Your task to perform on an android device: check android version Image 0: 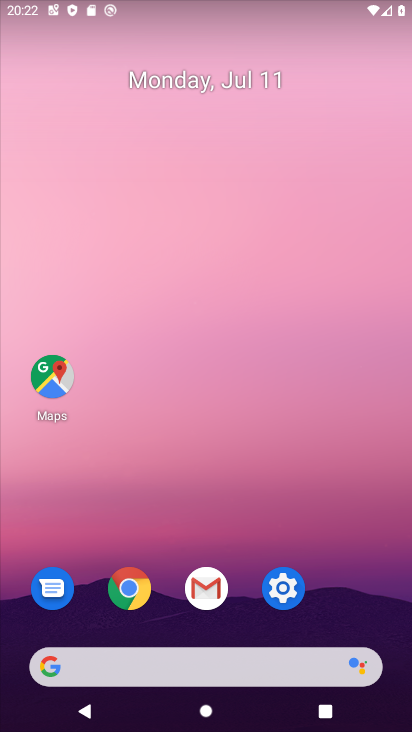
Step 0: click (280, 586)
Your task to perform on an android device: check android version Image 1: 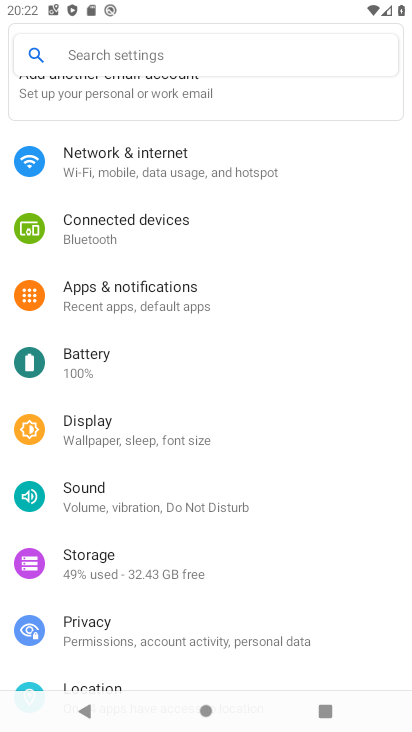
Step 1: click (111, 58)
Your task to perform on an android device: check android version Image 2: 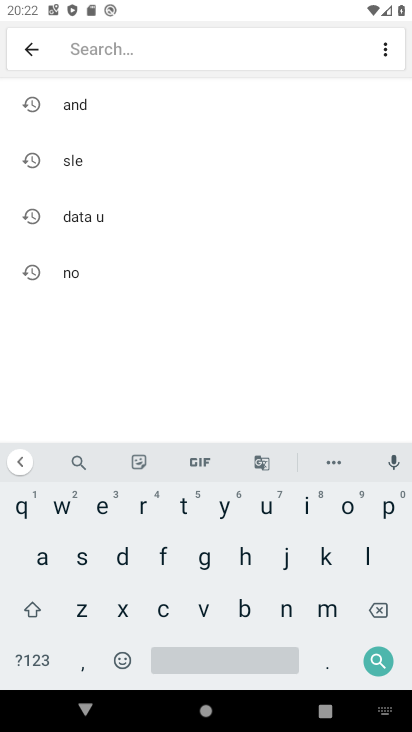
Step 2: click (120, 105)
Your task to perform on an android device: check android version Image 3: 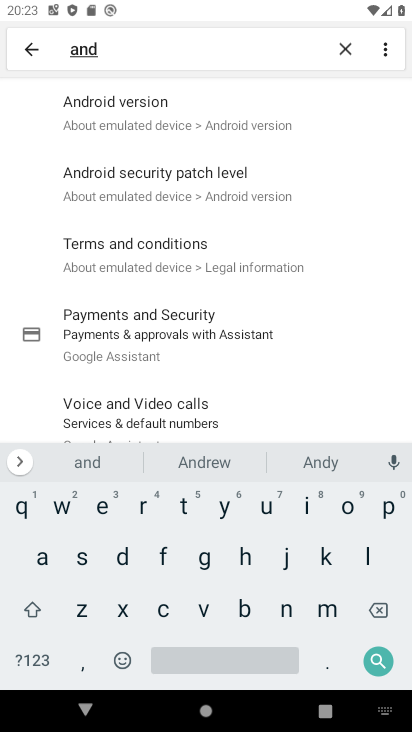
Step 3: click (120, 105)
Your task to perform on an android device: check android version Image 4: 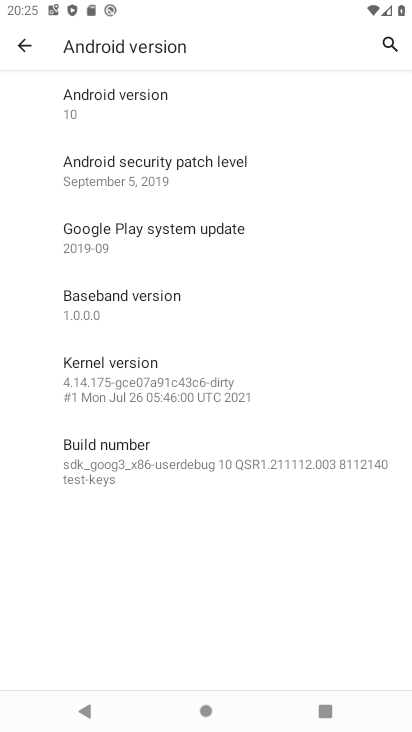
Step 4: task complete